Your task to perform on an android device: turn pop-ups off in chrome Image 0: 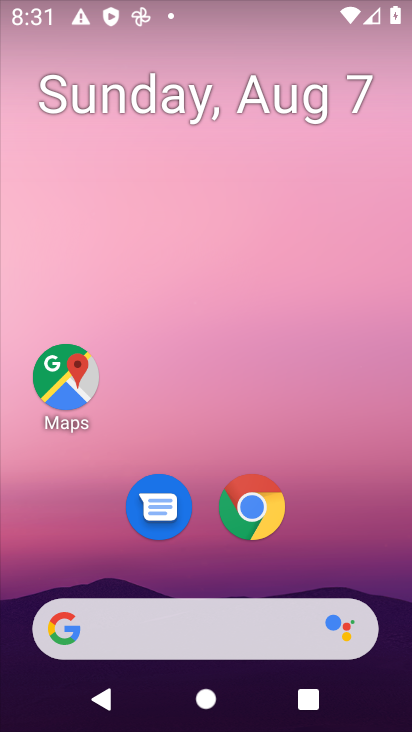
Step 0: click (254, 516)
Your task to perform on an android device: turn pop-ups off in chrome Image 1: 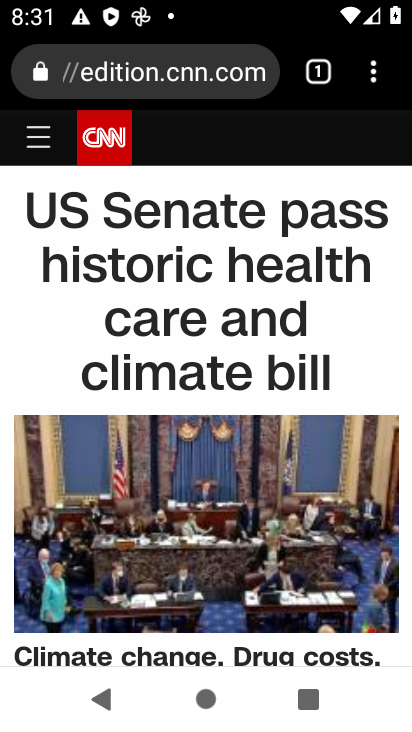
Step 1: drag from (378, 70) to (234, 515)
Your task to perform on an android device: turn pop-ups off in chrome Image 2: 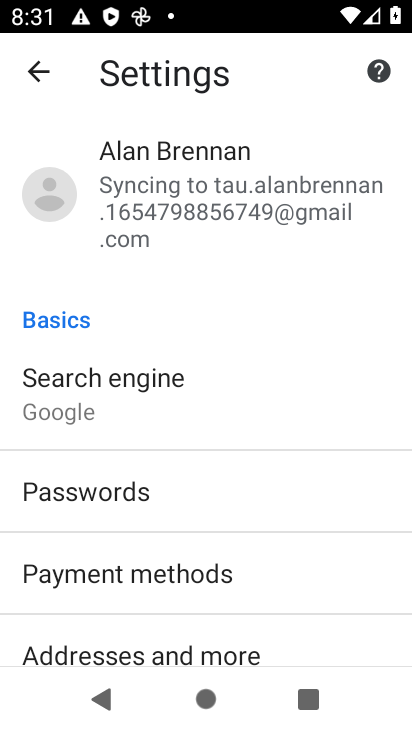
Step 2: drag from (239, 632) to (353, 104)
Your task to perform on an android device: turn pop-ups off in chrome Image 3: 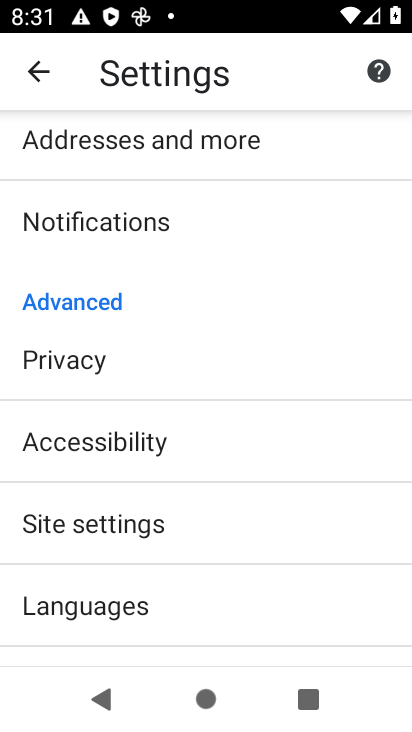
Step 3: click (138, 522)
Your task to perform on an android device: turn pop-ups off in chrome Image 4: 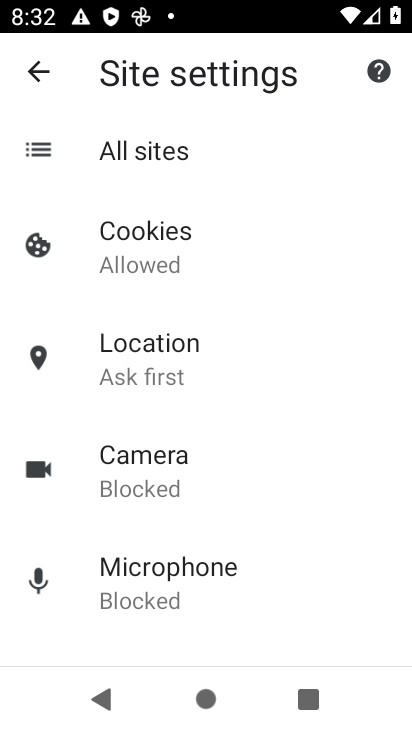
Step 4: drag from (285, 570) to (398, 63)
Your task to perform on an android device: turn pop-ups off in chrome Image 5: 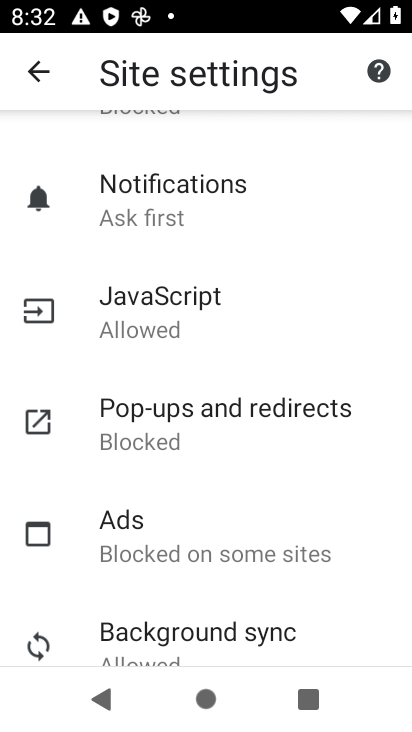
Step 5: click (184, 412)
Your task to perform on an android device: turn pop-ups off in chrome Image 6: 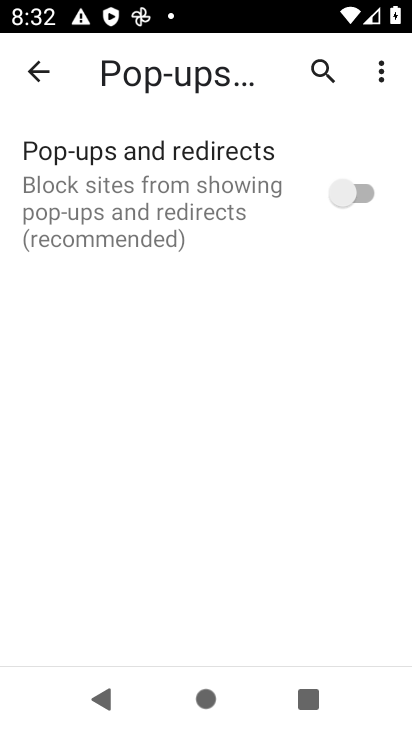
Step 6: task complete